Your task to perform on an android device: Do I have any events tomorrow? Image 0: 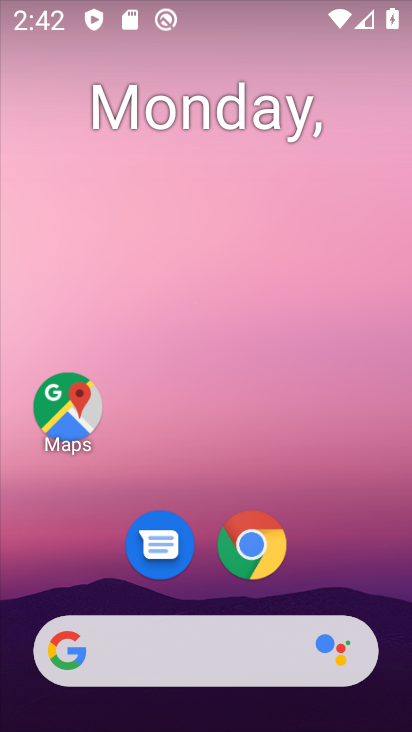
Step 0: drag from (268, 471) to (293, 55)
Your task to perform on an android device: Do I have any events tomorrow? Image 1: 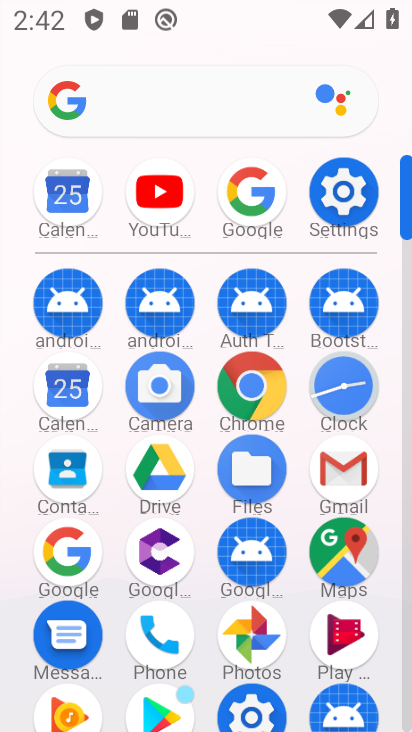
Step 1: click (72, 386)
Your task to perform on an android device: Do I have any events tomorrow? Image 2: 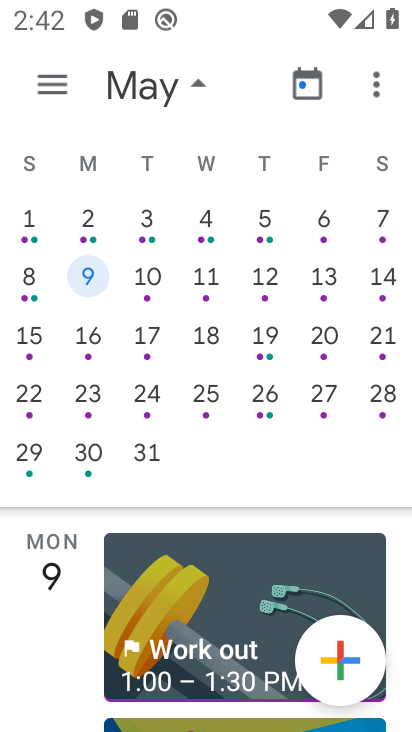
Step 2: drag from (20, 336) to (408, 327)
Your task to perform on an android device: Do I have any events tomorrow? Image 3: 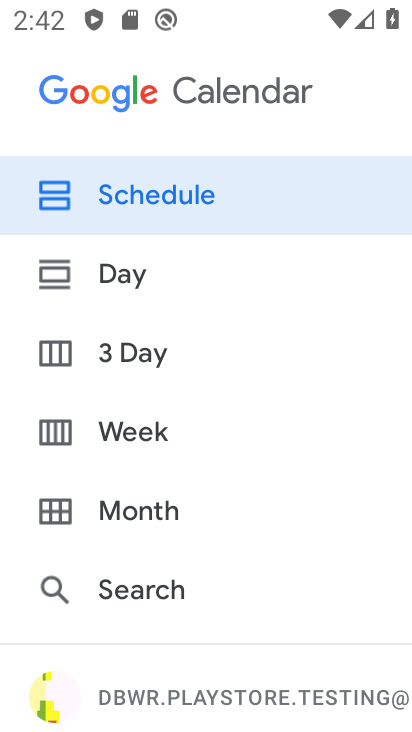
Step 3: drag from (391, 350) to (22, 365)
Your task to perform on an android device: Do I have any events tomorrow? Image 4: 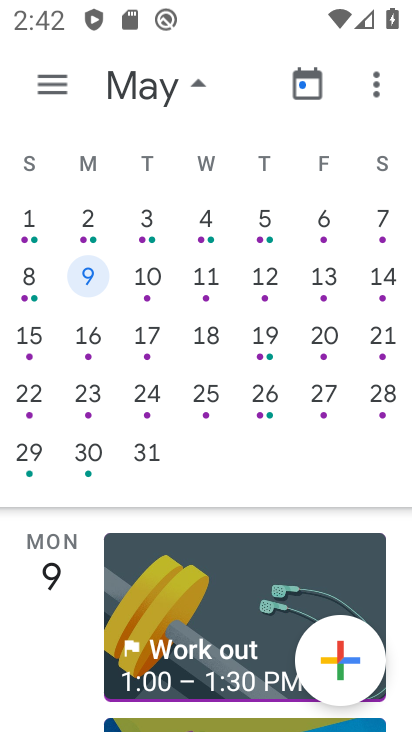
Step 4: click (162, 81)
Your task to perform on an android device: Do I have any events tomorrow? Image 5: 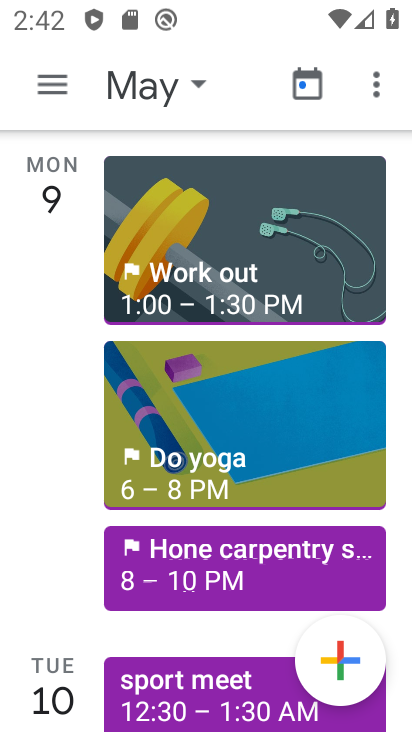
Step 5: click (165, 84)
Your task to perform on an android device: Do I have any events tomorrow? Image 6: 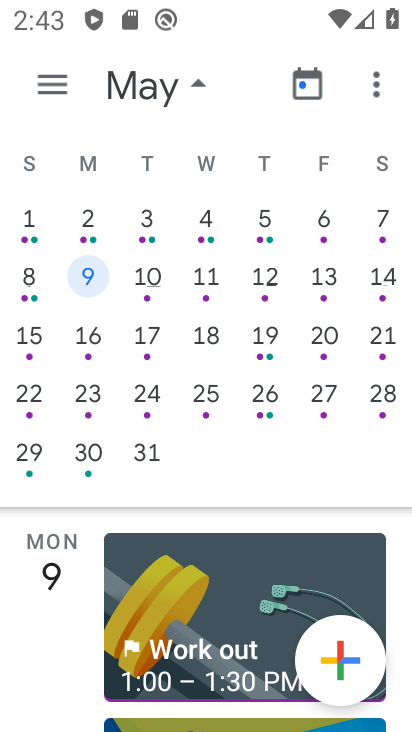
Step 6: drag from (54, 341) to (350, 315)
Your task to perform on an android device: Do I have any events tomorrow? Image 7: 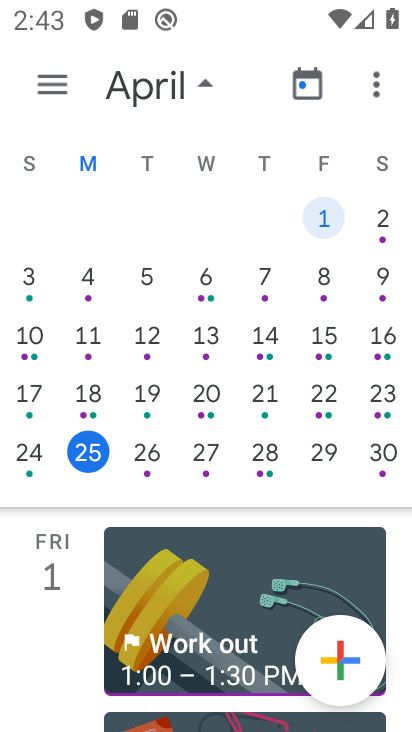
Step 7: click (141, 458)
Your task to perform on an android device: Do I have any events tomorrow? Image 8: 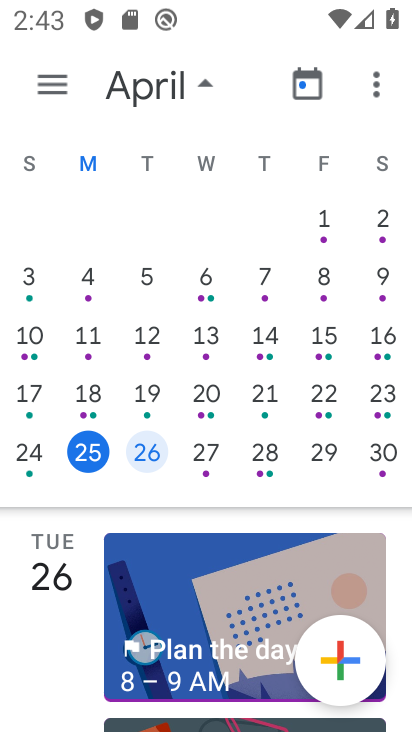
Step 8: drag from (195, 591) to (302, 110)
Your task to perform on an android device: Do I have any events tomorrow? Image 9: 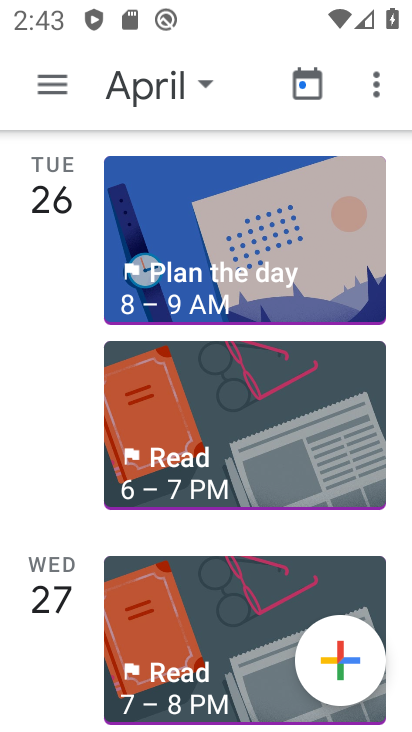
Step 9: click (242, 253)
Your task to perform on an android device: Do I have any events tomorrow? Image 10: 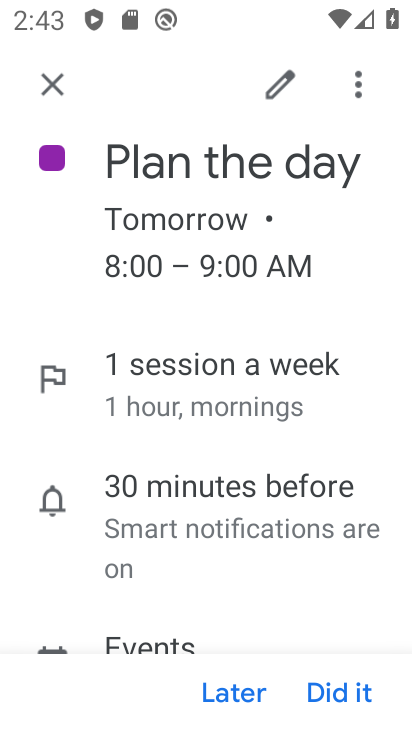
Step 10: task complete